Your task to perform on an android device: turn on notifications settings in the gmail app Image 0: 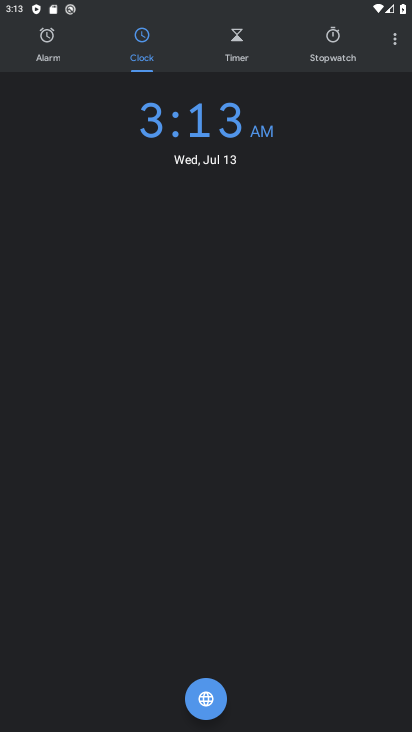
Step 0: drag from (206, 417) to (189, 235)
Your task to perform on an android device: turn on notifications settings in the gmail app Image 1: 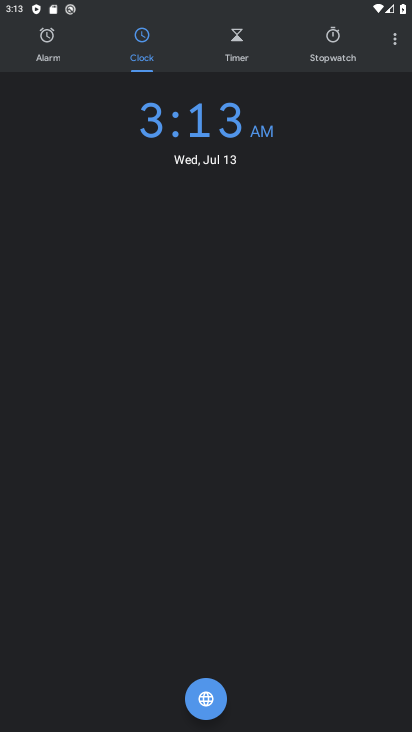
Step 1: drag from (260, 518) to (265, 421)
Your task to perform on an android device: turn on notifications settings in the gmail app Image 2: 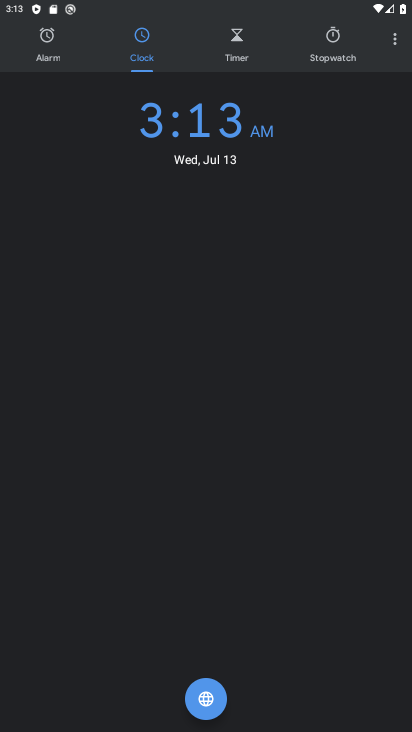
Step 2: drag from (247, 534) to (261, 463)
Your task to perform on an android device: turn on notifications settings in the gmail app Image 3: 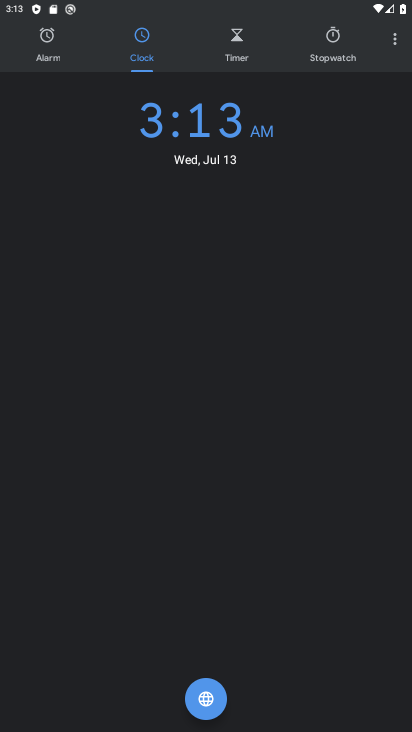
Step 3: drag from (211, 549) to (257, 252)
Your task to perform on an android device: turn on notifications settings in the gmail app Image 4: 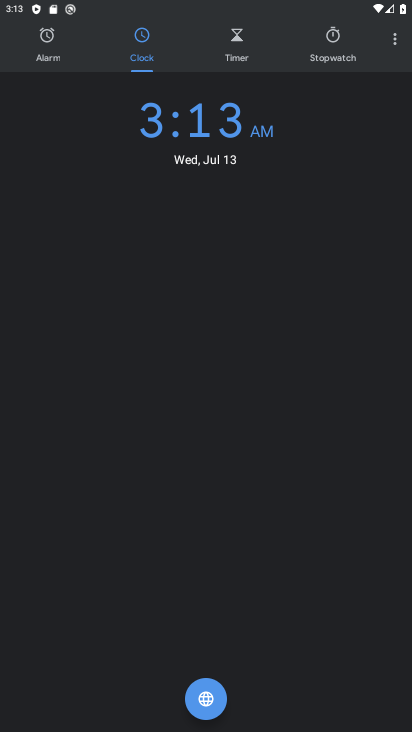
Step 4: press home button
Your task to perform on an android device: turn on notifications settings in the gmail app Image 5: 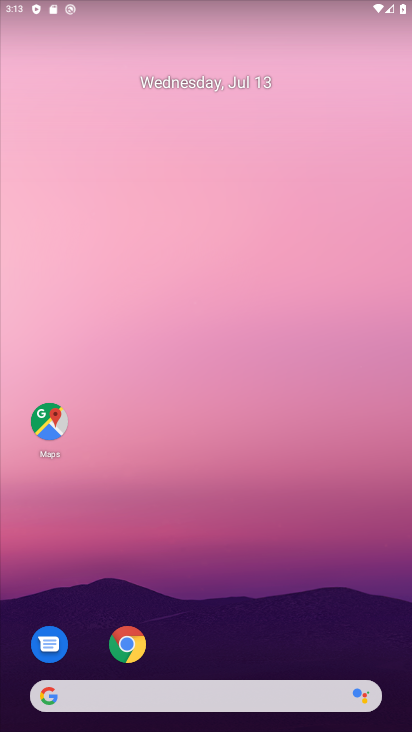
Step 5: drag from (185, 642) to (371, 96)
Your task to perform on an android device: turn on notifications settings in the gmail app Image 6: 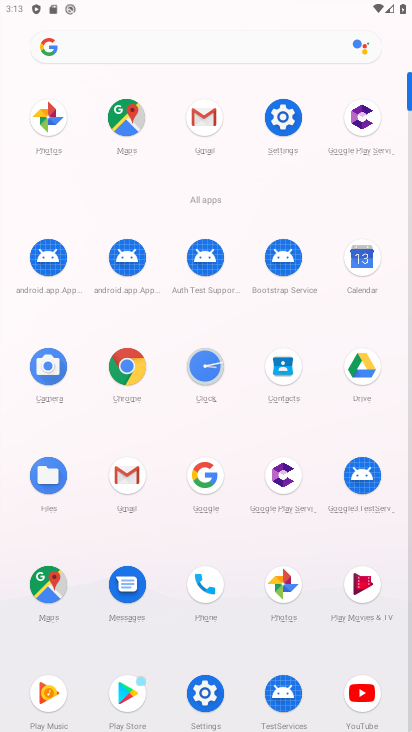
Step 6: click (126, 476)
Your task to perform on an android device: turn on notifications settings in the gmail app Image 7: 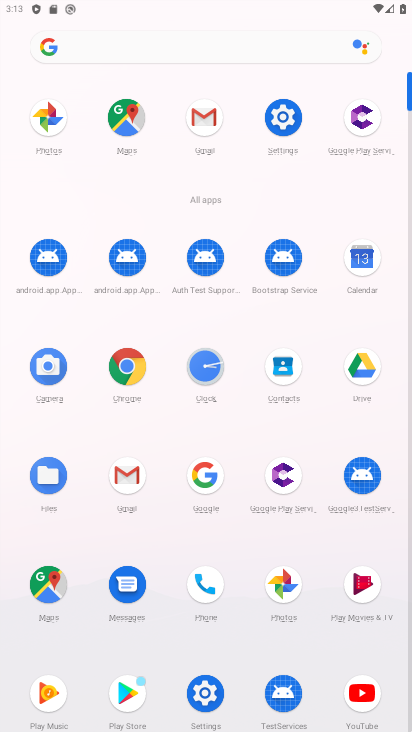
Step 7: click (126, 476)
Your task to perform on an android device: turn on notifications settings in the gmail app Image 8: 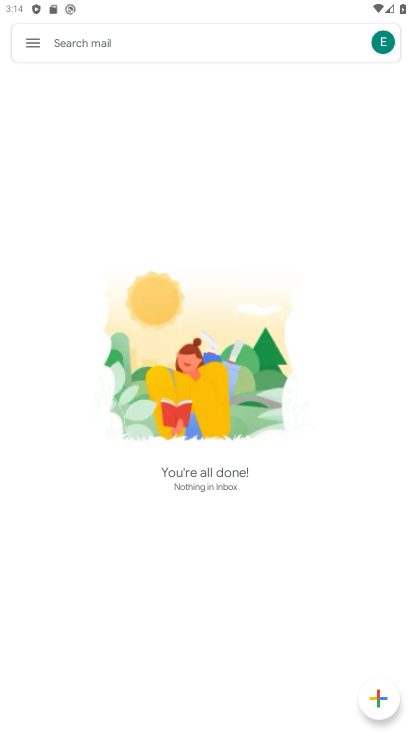
Step 8: click (27, 45)
Your task to perform on an android device: turn on notifications settings in the gmail app Image 9: 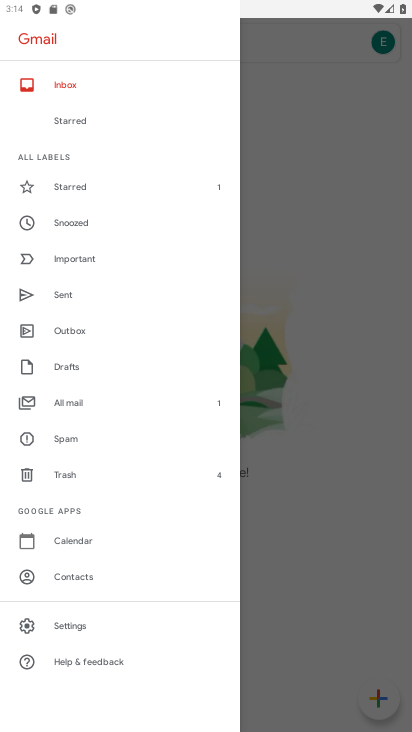
Step 9: drag from (131, 527) to (132, 299)
Your task to perform on an android device: turn on notifications settings in the gmail app Image 10: 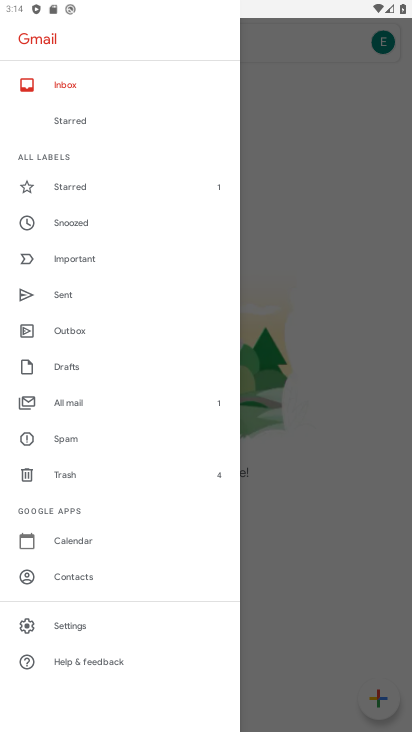
Step 10: click (88, 625)
Your task to perform on an android device: turn on notifications settings in the gmail app Image 11: 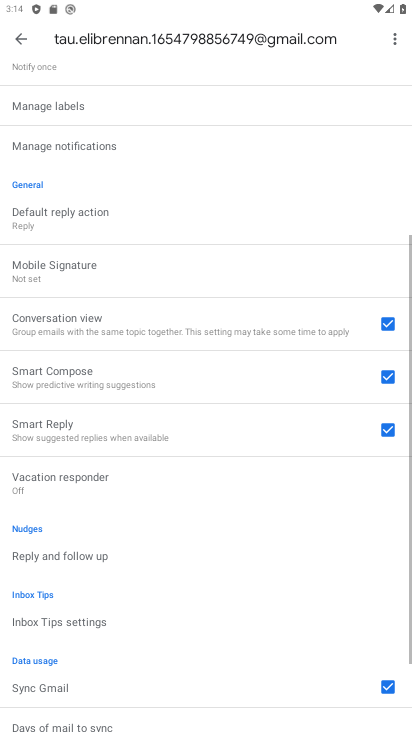
Step 11: drag from (236, 530) to (273, 179)
Your task to perform on an android device: turn on notifications settings in the gmail app Image 12: 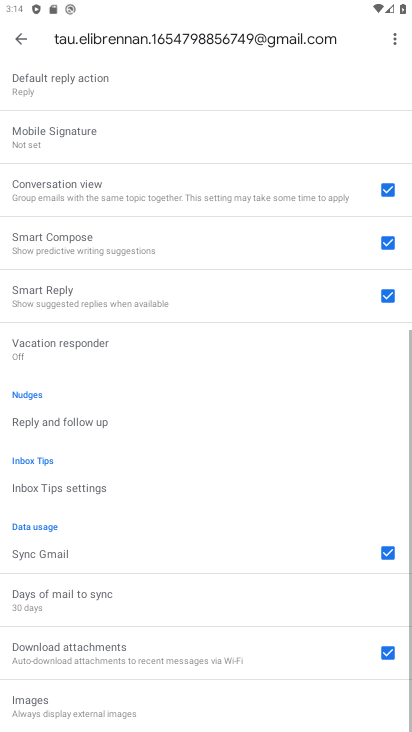
Step 12: drag from (191, 248) to (259, 643)
Your task to perform on an android device: turn on notifications settings in the gmail app Image 13: 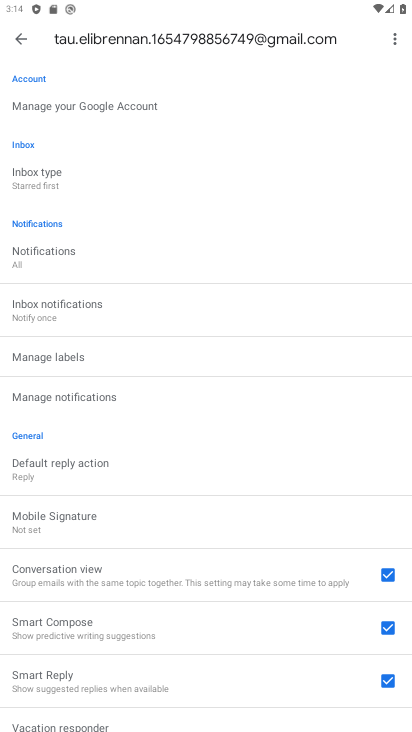
Step 13: click (112, 387)
Your task to perform on an android device: turn on notifications settings in the gmail app Image 14: 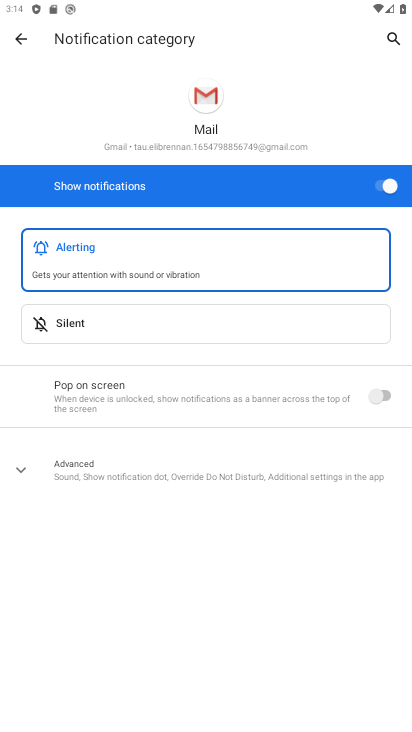
Step 14: task complete